Your task to perform on an android device: open the mobile data screen to see how much data has been used Image 0: 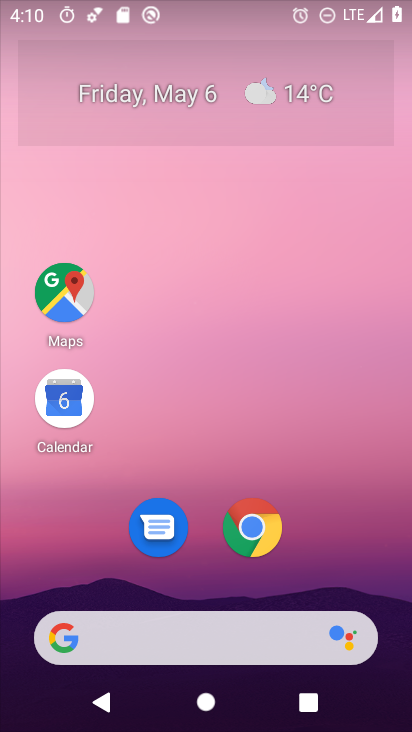
Step 0: drag from (373, 577) to (353, 200)
Your task to perform on an android device: open the mobile data screen to see how much data has been used Image 1: 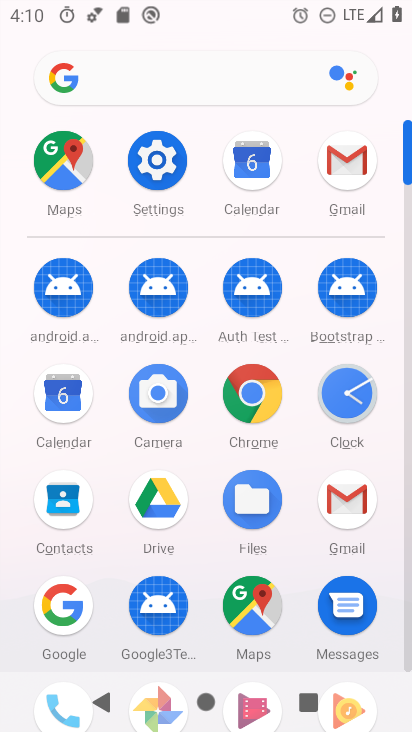
Step 1: click (166, 163)
Your task to perform on an android device: open the mobile data screen to see how much data has been used Image 2: 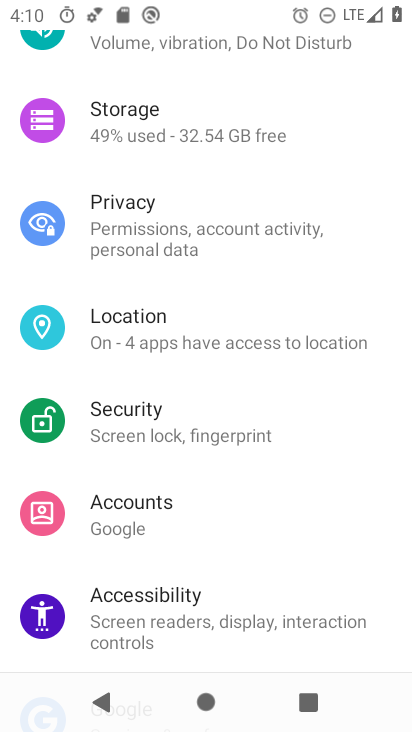
Step 2: drag from (279, 176) to (277, 678)
Your task to perform on an android device: open the mobile data screen to see how much data has been used Image 3: 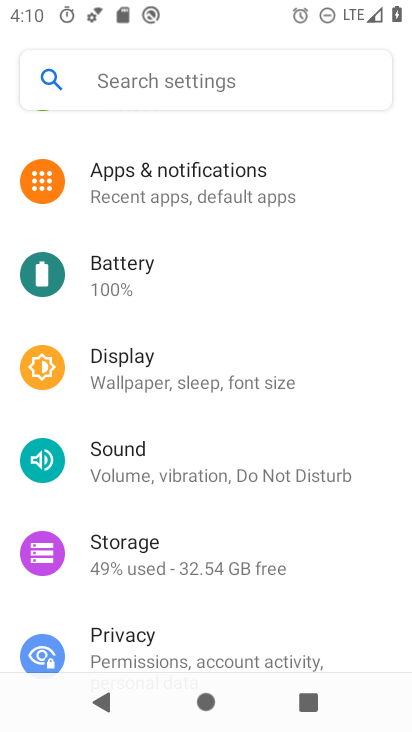
Step 3: drag from (233, 221) to (258, 622)
Your task to perform on an android device: open the mobile data screen to see how much data has been used Image 4: 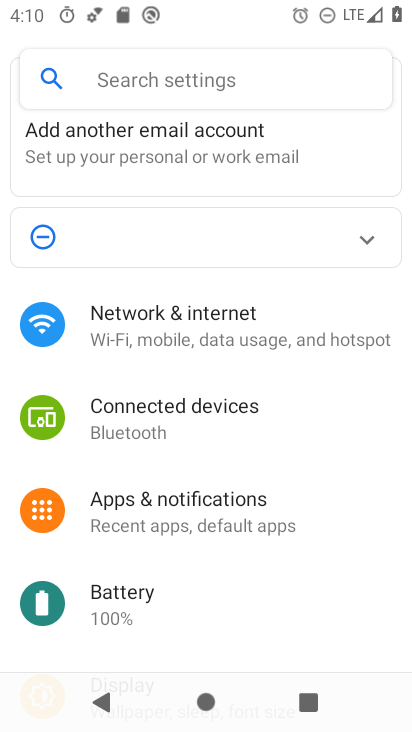
Step 4: drag from (259, 259) to (259, 581)
Your task to perform on an android device: open the mobile data screen to see how much data has been used Image 5: 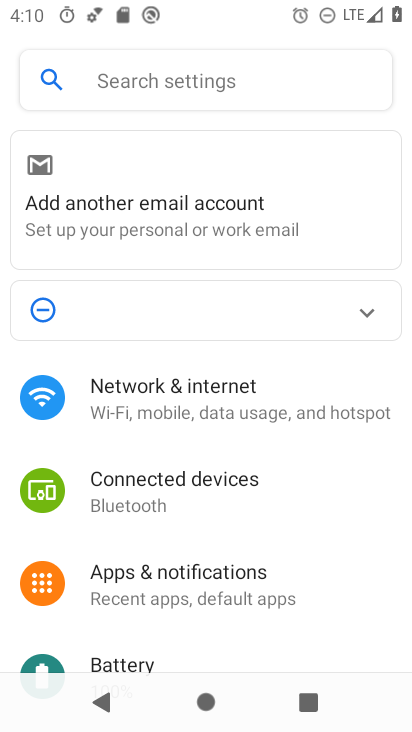
Step 5: drag from (248, 540) to (323, 137)
Your task to perform on an android device: open the mobile data screen to see how much data has been used Image 6: 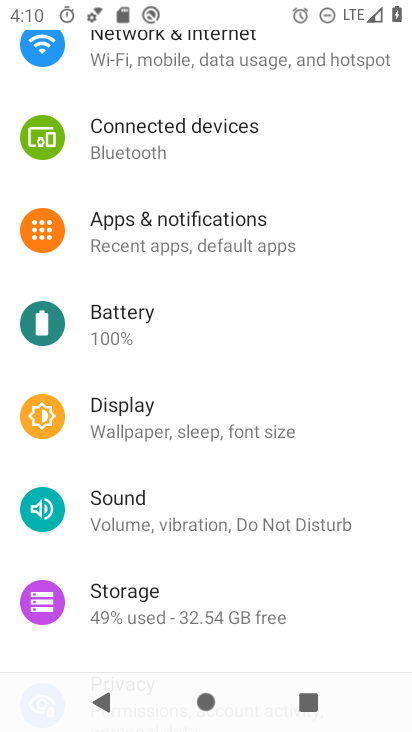
Step 6: click (210, 51)
Your task to perform on an android device: open the mobile data screen to see how much data has been used Image 7: 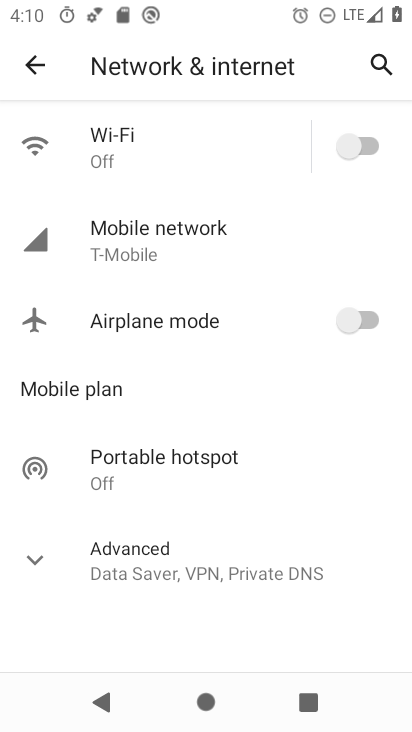
Step 7: click (172, 242)
Your task to perform on an android device: open the mobile data screen to see how much data has been used Image 8: 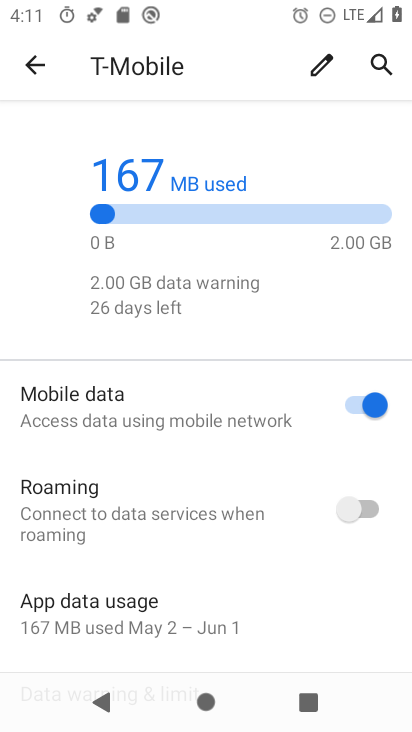
Step 8: task complete